Your task to perform on an android device: delete location history Image 0: 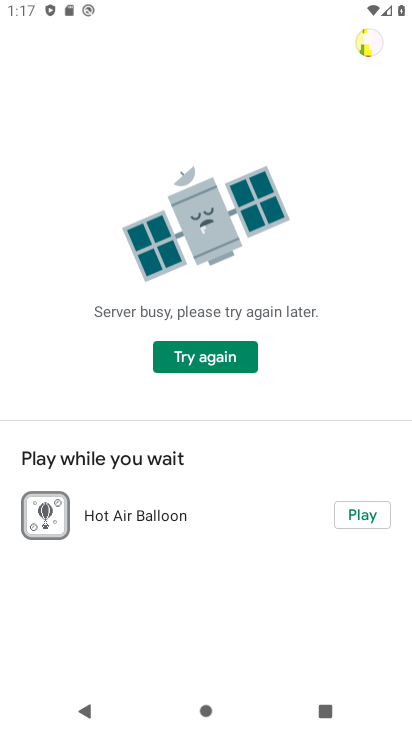
Step 0: press home button
Your task to perform on an android device: delete location history Image 1: 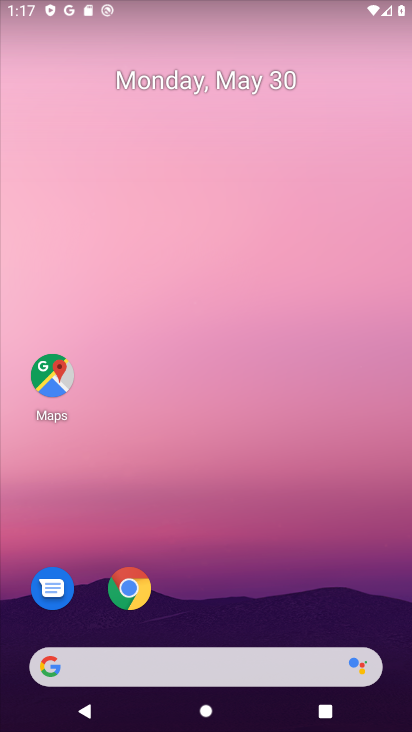
Step 1: click (51, 377)
Your task to perform on an android device: delete location history Image 2: 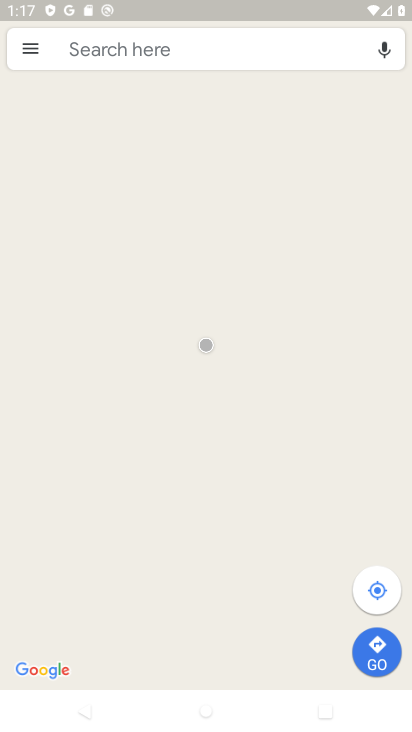
Step 2: click (29, 51)
Your task to perform on an android device: delete location history Image 3: 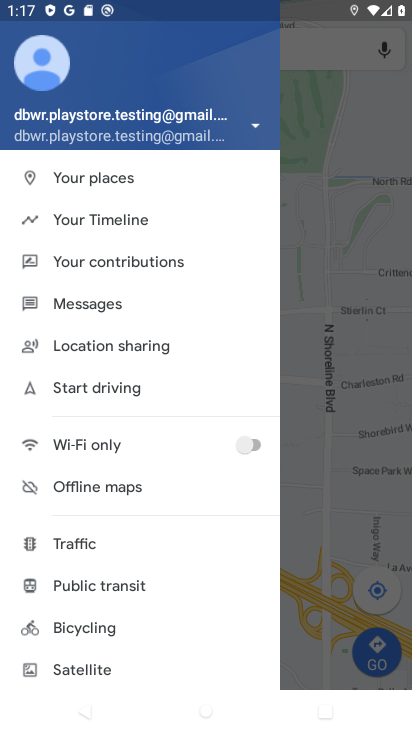
Step 3: drag from (115, 534) to (156, 453)
Your task to perform on an android device: delete location history Image 4: 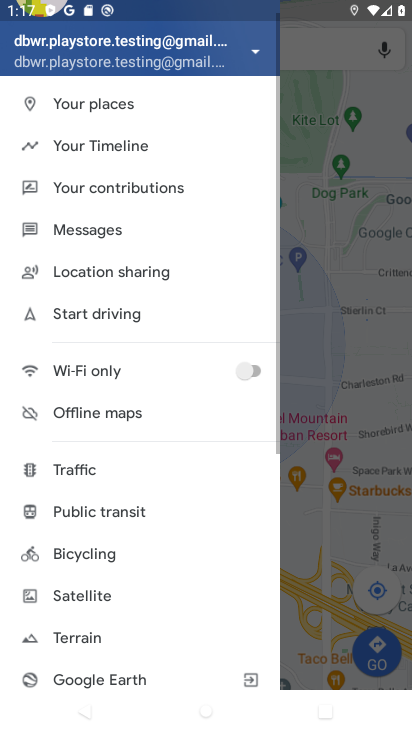
Step 4: drag from (88, 576) to (140, 464)
Your task to perform on an android device: delete location history Image 5: 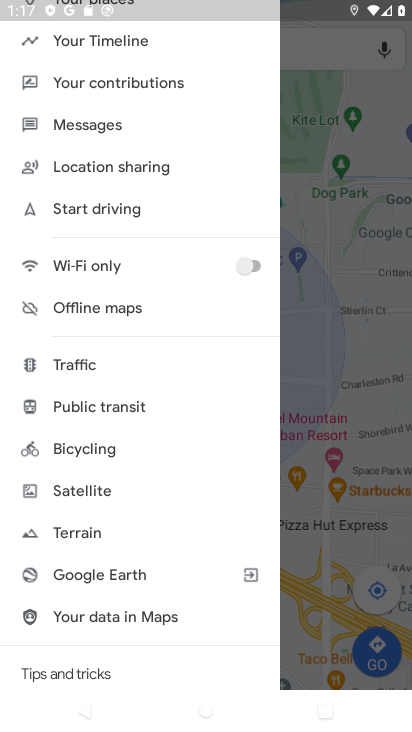
Step 5: drag from (87, 594) to (127, 473)
Your task to perform on an android device: delete location history Image 6: 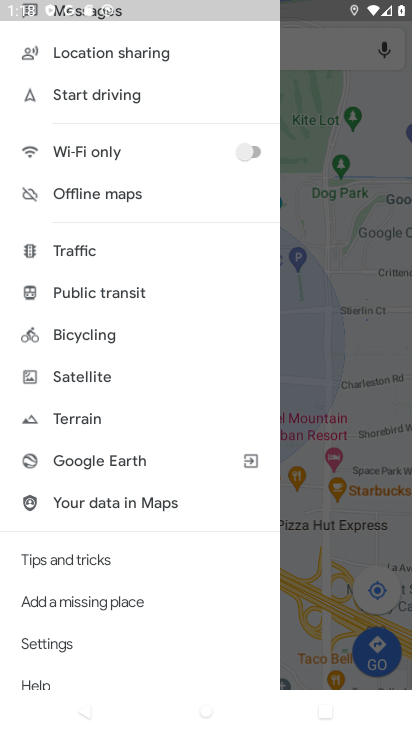
Step 6: click (56, 653)
Your task to perform on an android device: delete location history Image 7: 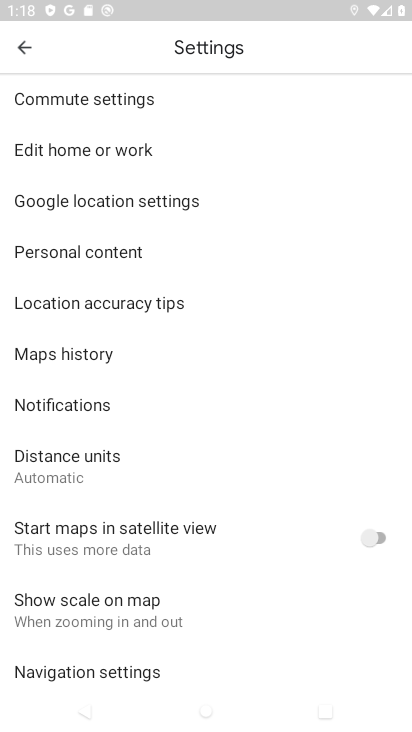
Step 7: click (92, 246)
Your task to perform on an android device: delete location history Image 8: 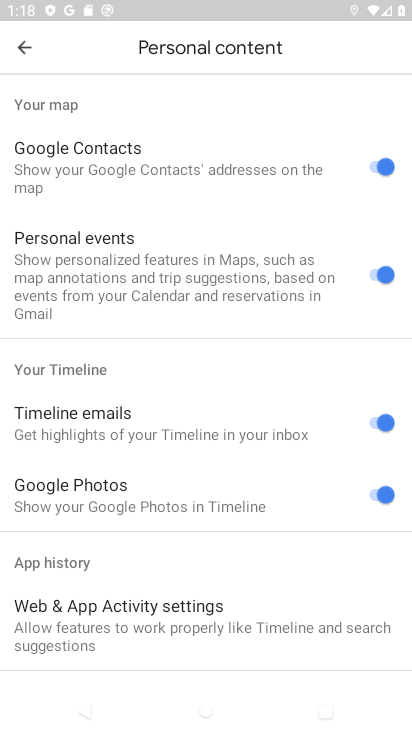
Step 8: drag from (139, 451) to (205, 362)
Your task to perform on an android device: delete location history Image 9: 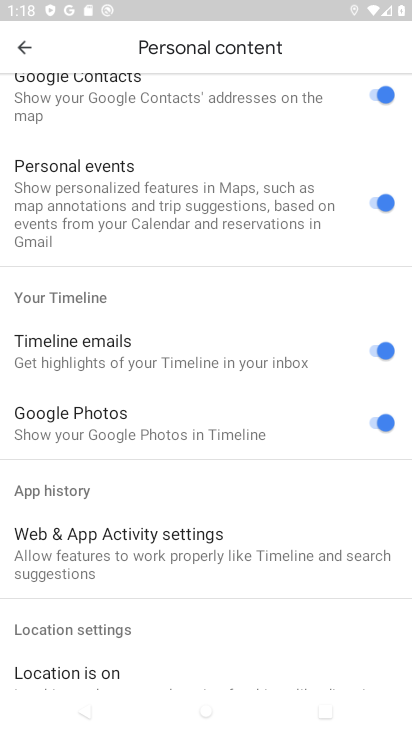
Step 9: drag from (138, 594) to (206, 471)
Your task to perform on an android device: delete location history Image 10: 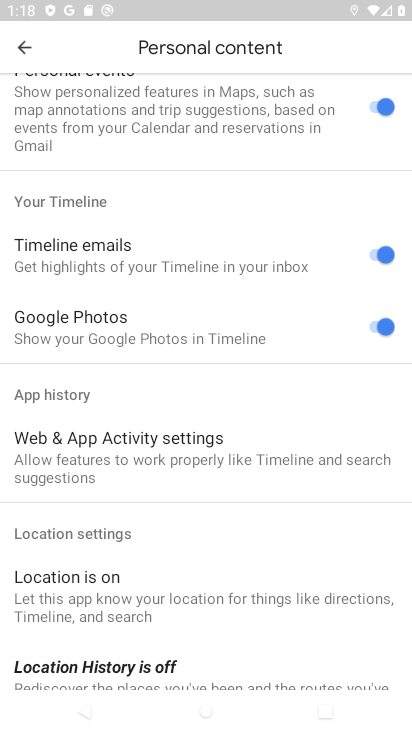
Step 10: drag from (166, 587) to (250, 424)
Your task to perform on an android device: delete location history Image 11: 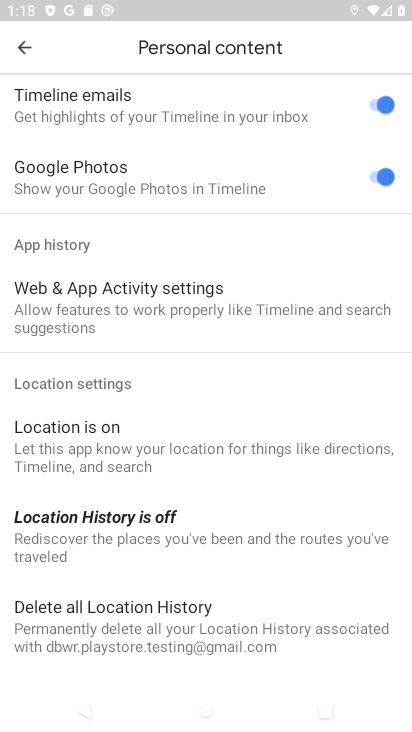
Step 11: drag from (185, 555) to (260, 399)
Your task to perform on an android device: delete location history Image 12: 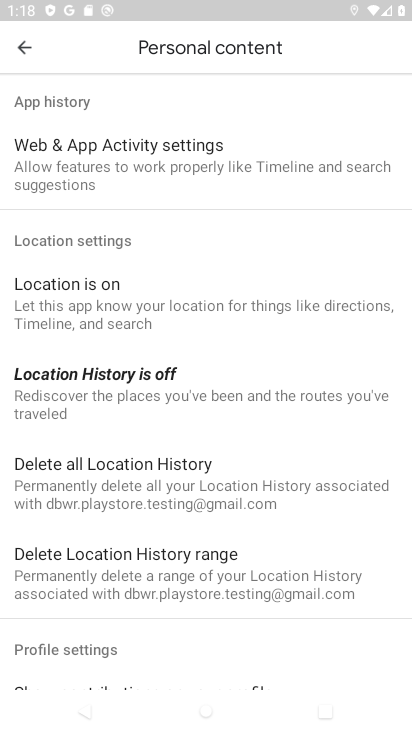
Step 12: click (184, 460)
Your task to perform on an android device: delete location history Image 13: 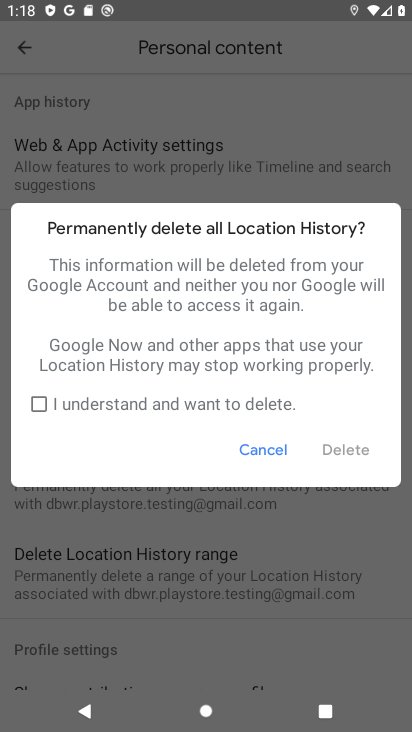
Step 13: click (32, 405)
Your task to perform on an android device: delete location history Image 14: 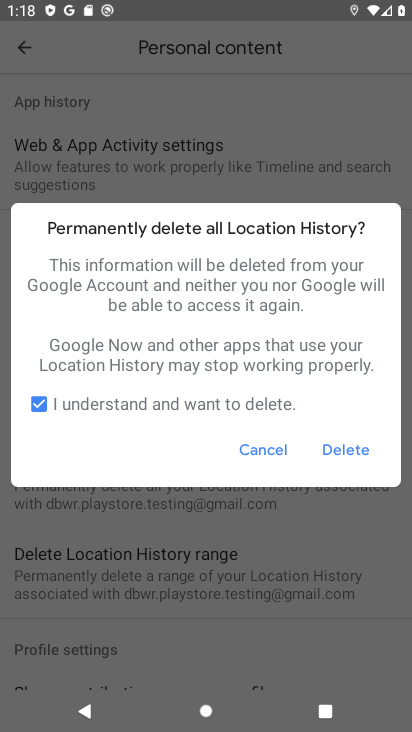
Step 14: click (350, 448)
Your task to perform on an android device: delete location history Image 15: 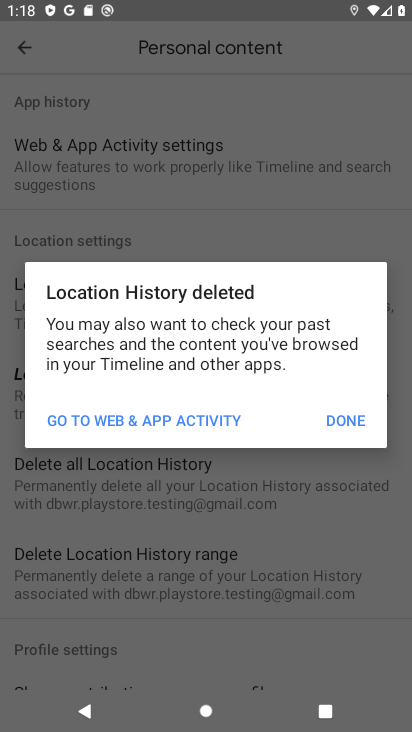
Step 15: click (342, 424)
Your task to perform on an android device: delete location history Image 16: 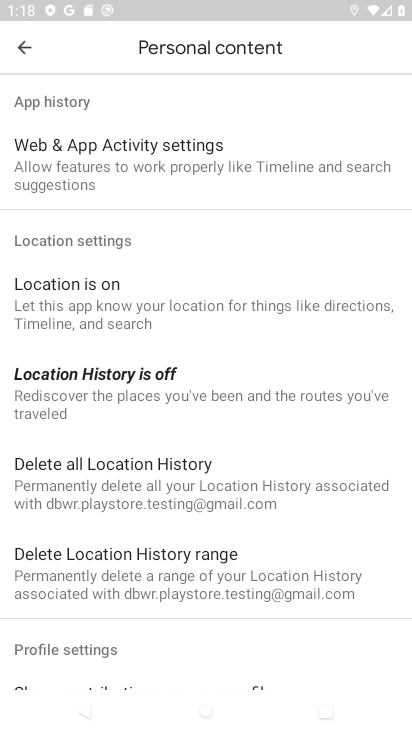
Step 16: task complete